Your task to perform on an android device: Go to eBay Image 0: 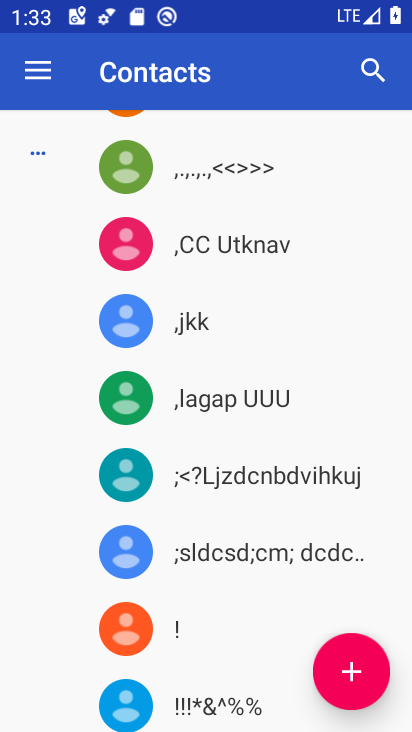
Step 0: press home button
Your task to perform on an android device: Go to eBay Image 1: 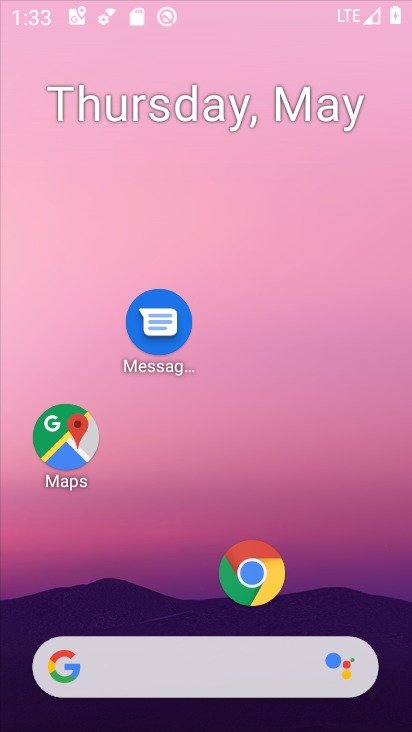
Step 1: drag from (213, 615) to (269, 58)
Your task to perform on an android device: Go to eBay Image 2: 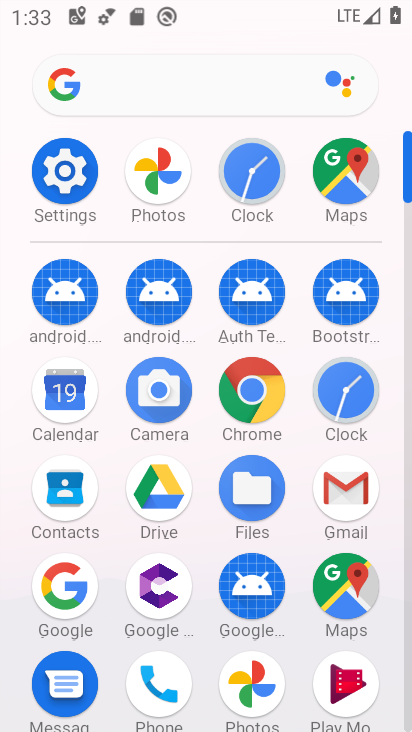
Step 2: click (189, 69)
Your task to perform on an android device: Go to eBay Image 3: 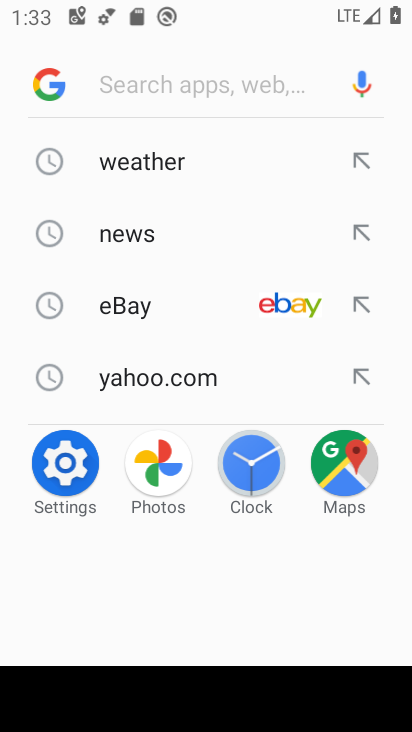
Step 3: click (273, 313)
Your task to perform on an android device: Go to eBay Image 4: 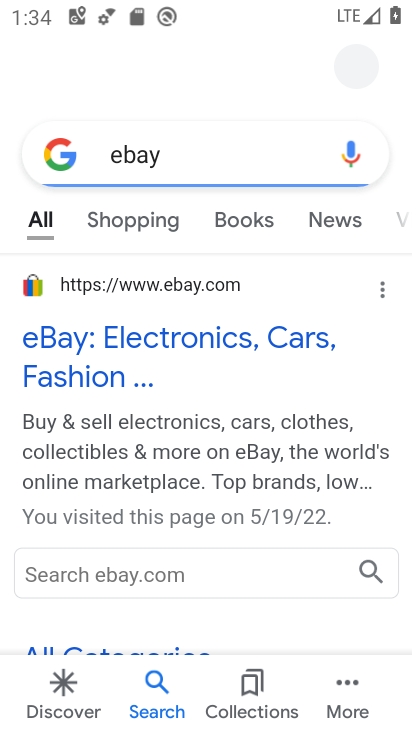
Step 4: drag from (213, 653) to (280, 193)
Your task to perform on an android device: Go to eBay Image 5: 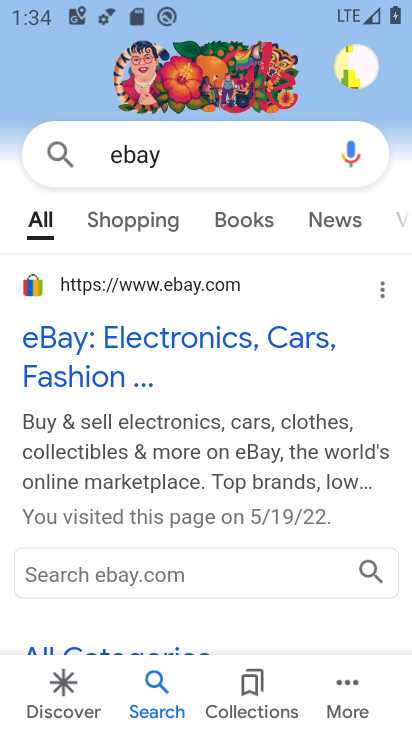
Step 5: click (107, 339)
Your task to perform on an android device: Go to eBay Image 6: 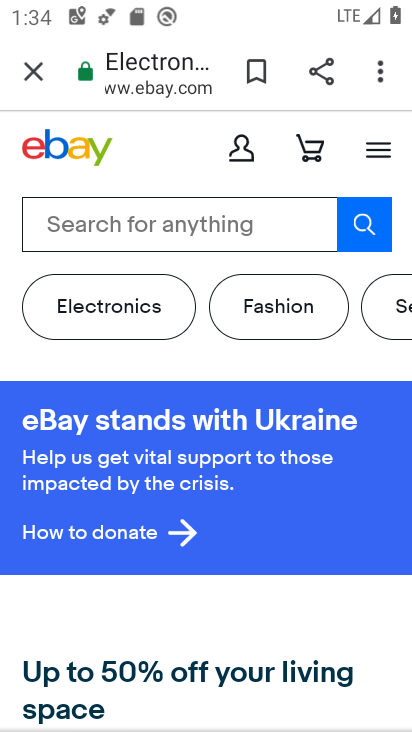
Step 6: task complete